Your task to perform on an android device: Show me productivity apps on the Play Store Image 0: 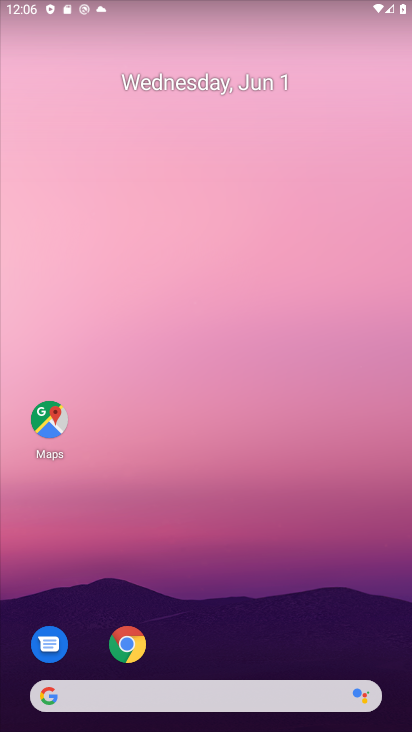
Step 0: drag from (339, 394) to (347, 194)
Your task to perform on an android device: Show me productivity apps on the Play Store Image 1: 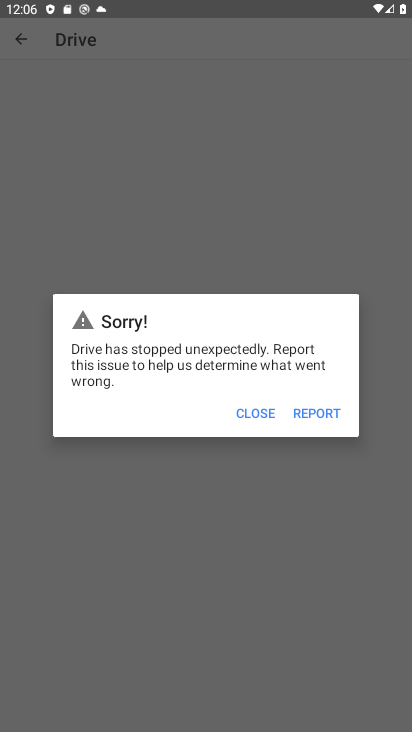
Step 1: press home button
Your task to perform on an android device: Show me productivity apps on the Play Store Image 2: 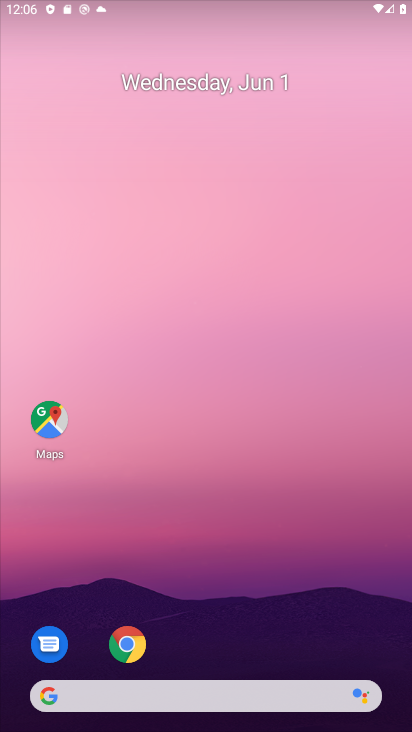
Step 2: drag from (380, 669) to (361, 273)
Your task to perform on an android device: Show me productivity apps on the Play Store Image 3: 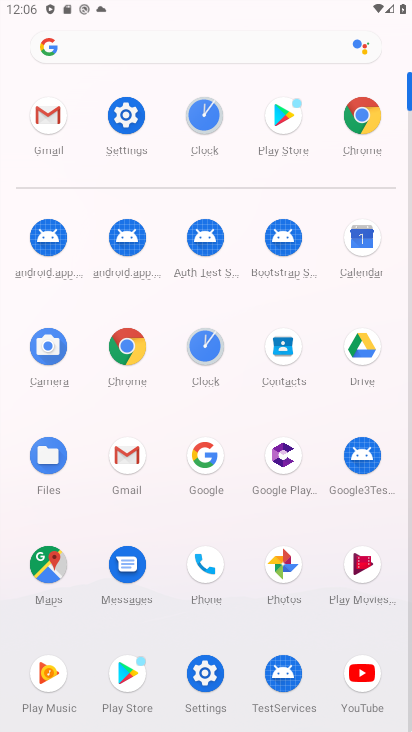
Step 3: click (127, 682)
Your task to perform on an android device: Show me productivity apps on the Play Store Image 4: 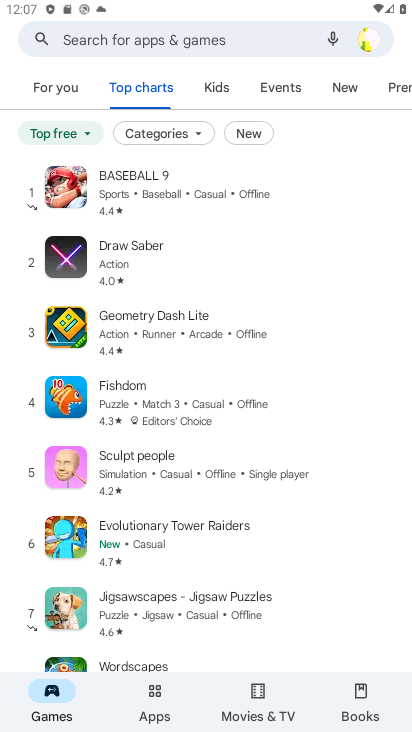
Step 4: click (158, 703)
Your task to perform on an android device: Show me productivity apps on the Play Store Image 5: 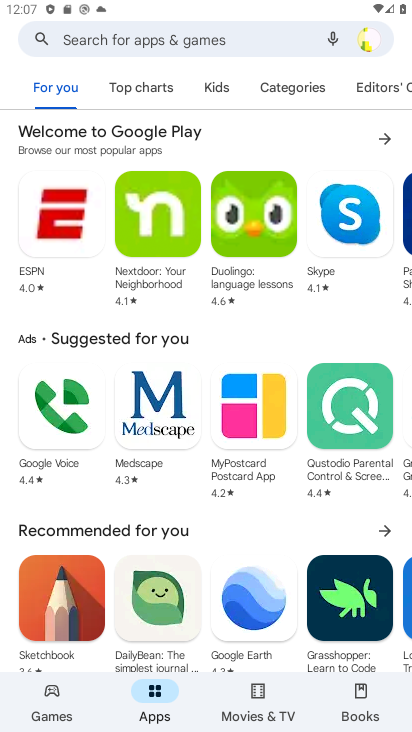
Step 5: click (262, 84)
Your task to perform on an android device: Show me productivity apps on the Play Store Image 6: 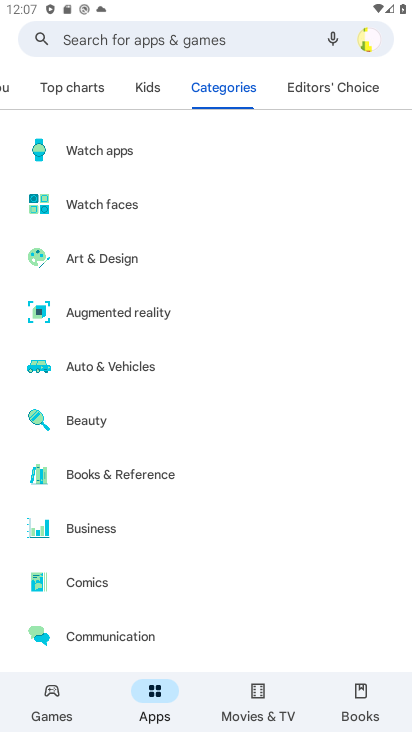
Step 6: drag from (130, 578) to (196, 254)
Your task to perform on an android device: Show me productivity apps on the Play Store Image 7: 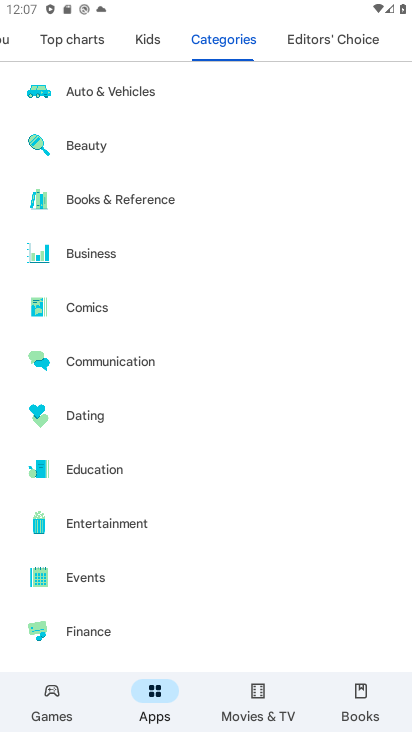
Step 7: drag from (226, 604) to (245, 187)
Your task to perform on an android device: Show me productivity apps on the Play Store Image 8: 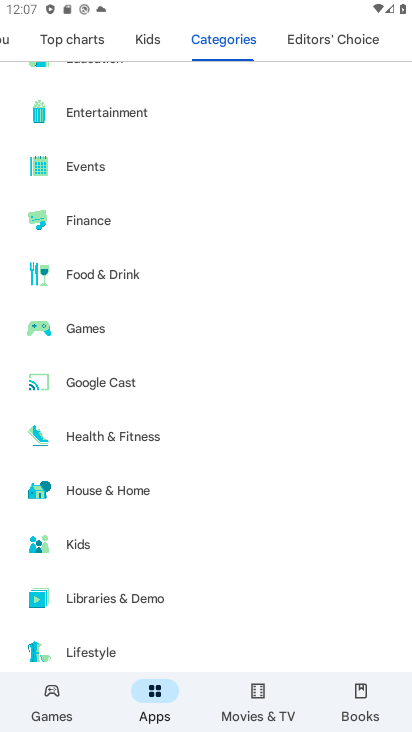
Step 8: drag from (183, 604) to (224, 194)
Your task to perform on an android device: Show me productivity apps on the Play Store Image 9: 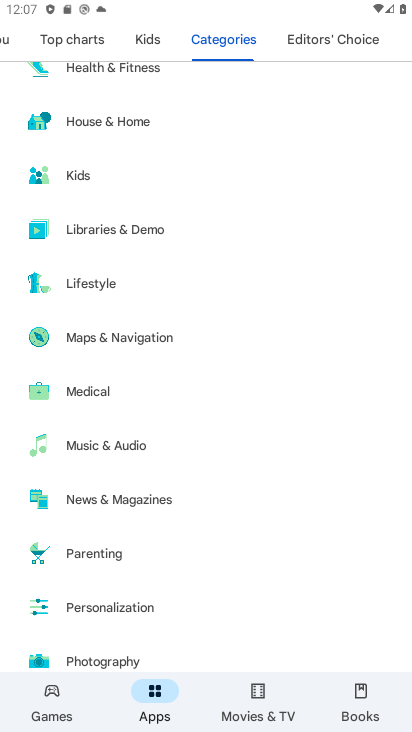
Step 9: drag from (196, 501) to (216, 137)
Your task to perform on an android device: Show me productivity apps on the Play Store Image 10: 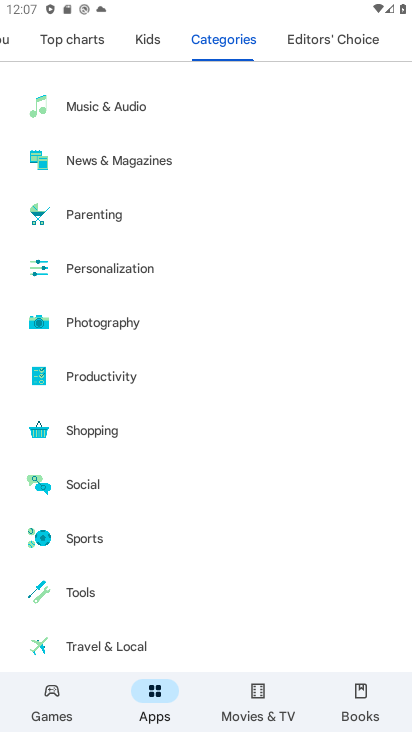
Step 10: drag from (188, 559) to (234, 198)
Your task to perform on an android device: Show me productivity apps on the Play Store Image 11: 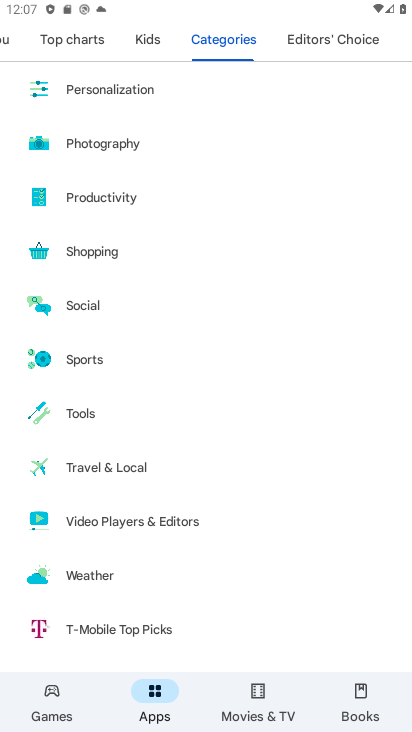
Step 11: drag from (210, 600) to (243, 253)
Your task to perform on an android device: Show me productivity apps on the Play Store Image 12: 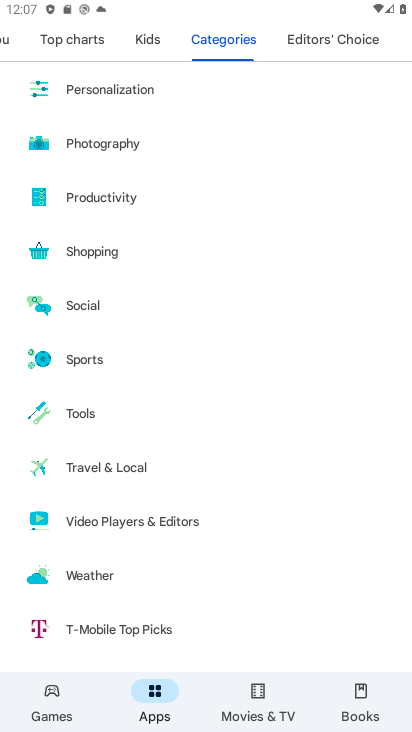
Step 12: click (114, 198)
Your task to perform on an android device: Show me productivity apps on the Play Store Image 13: 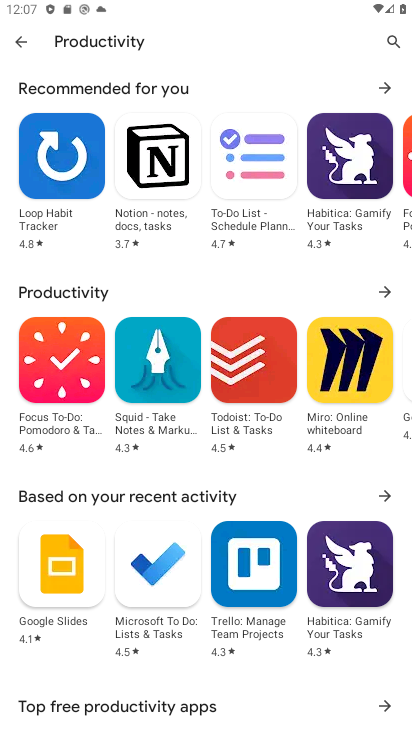
Step 13: task complete